Your task to perform on an android device: Turn on the flashlight Image 0: 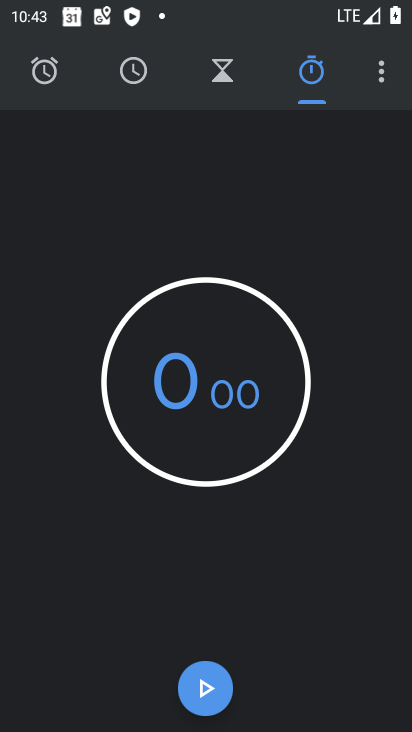
Step 0: press home button
Your task to perform on an android device: Turn on the flashlight Image 1: 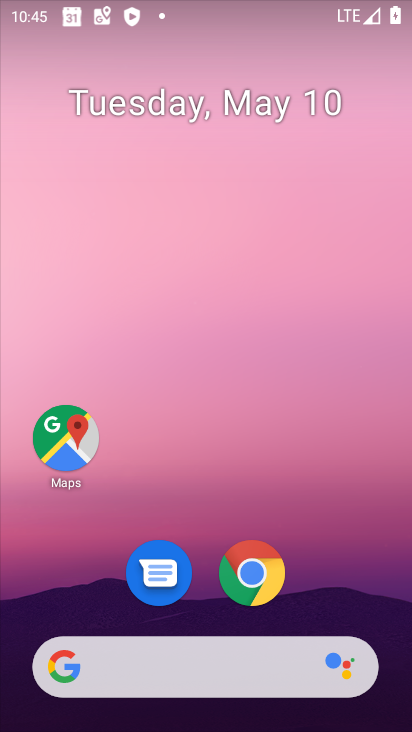
Step 1: drag from (353, 531) to (269, 219)
Your task to perform on an android device: Turn on the flashlight Image 2: 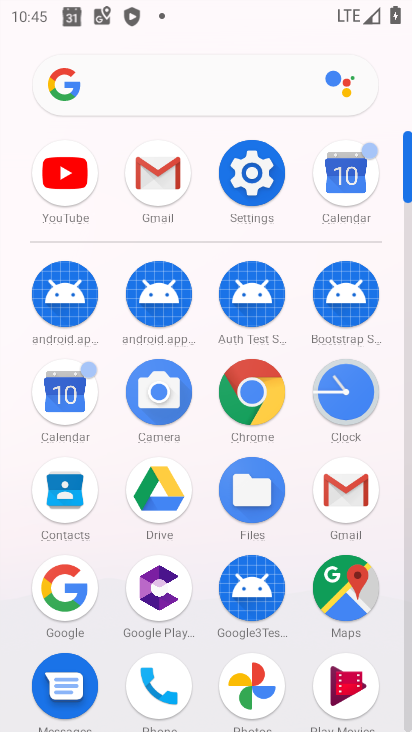
Step 2: click (250, 169)
Your task to perform on an android device: Turn on the flashlight Image 3: 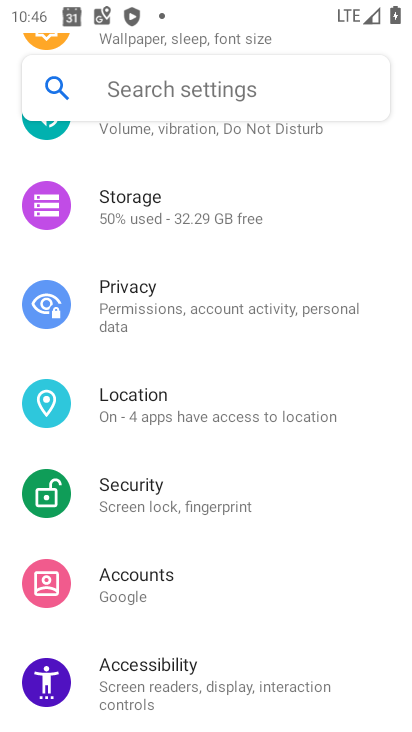
Step 3: click (120, 267)
Your task to perform on an android device: Turn on the flashlight Image 4: 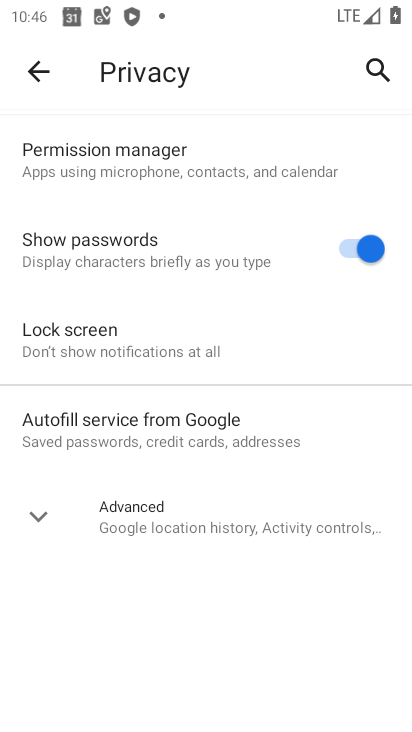
Step 4: task complete